Your task to perform on an android device: turn off smart reply in the gmail app Image 0: 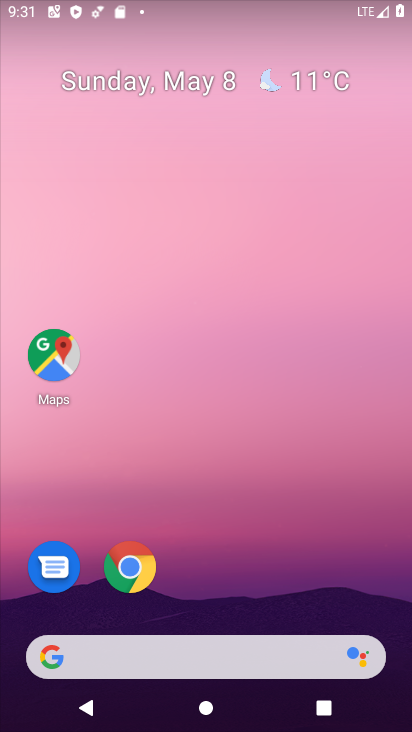
Step 0: drag from (194, 574) to (245, 61)
Your task to perform on an android device: turn off smart reply in the gmail app Image 1: 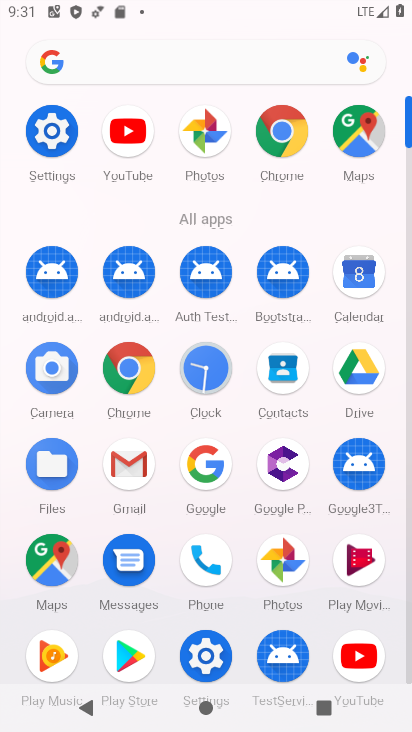
Step 1: click (121, 458)
Your task to perform on an android device: turn off smart reply in the gmail app Image 2: 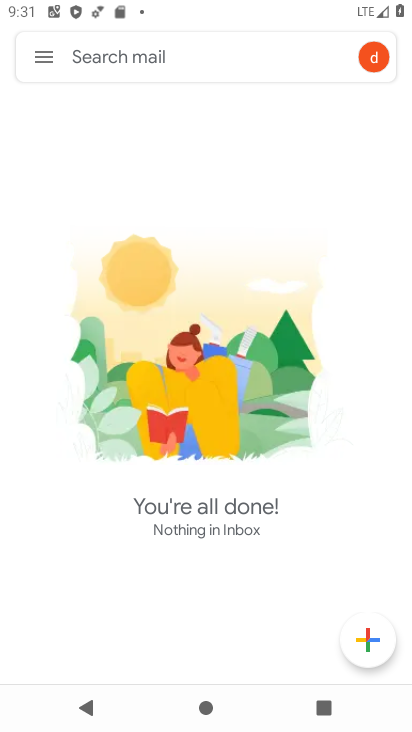
Step 2: click (35, 49)
Your task to perform on an android device: turn off smart reply in the gmail app Image 3: 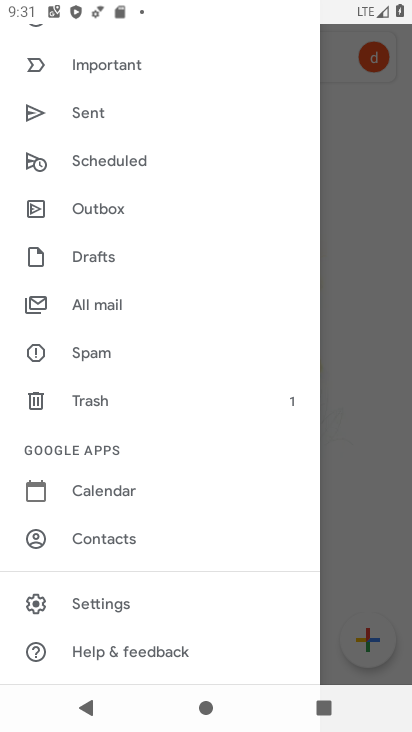
Step 3: click (115, 606)
Your task to perform on an android device: turn off smart reply in the gmail app Image 4: 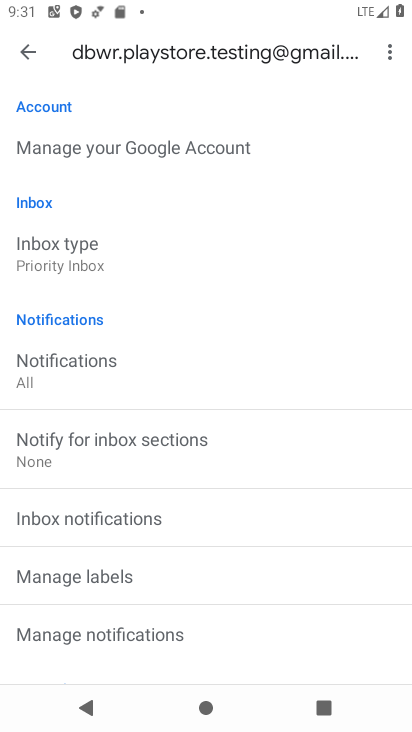
Step 4: drag from (187, 652) to (219, 78)
Your task to perform on an android device: turn off smart reply in the gmail app Image 5: 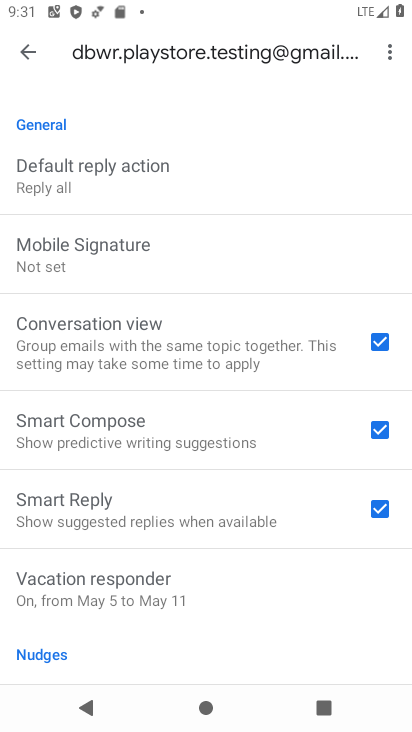
Step 5: click (386, 507)
Your task to perform on an android device: turn off smart reply in the gmail app Image 6: 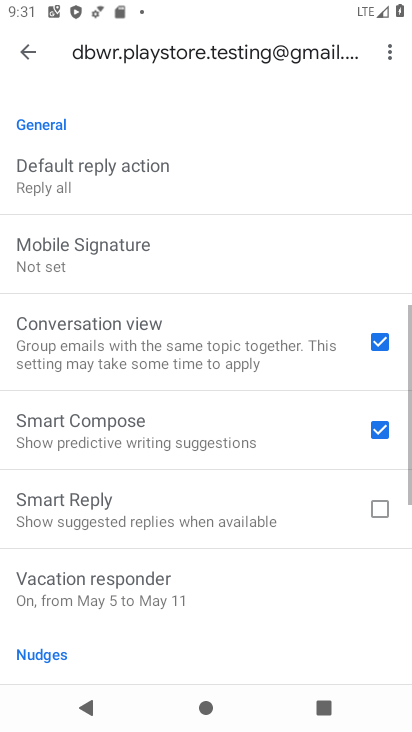
Step 6: task complete